Your task to perform on an android device: read, delete, or share a saved page in the chrome app Image 0: 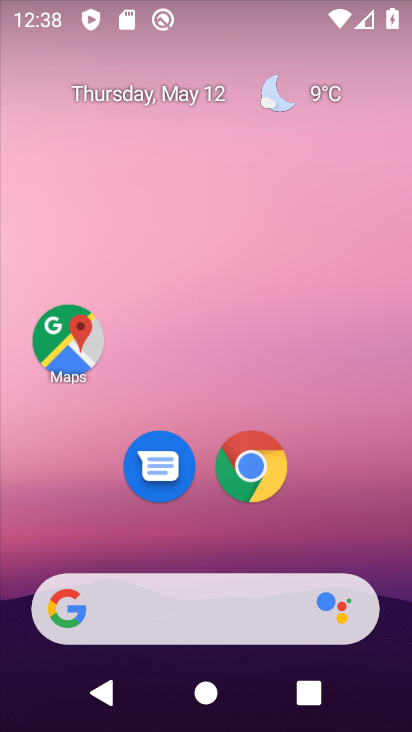
Step 0: drag from (299, 570) to (326, 369)
Your task to perform on an android device: read, delete, or share a saved page in the chrome app Image 1: 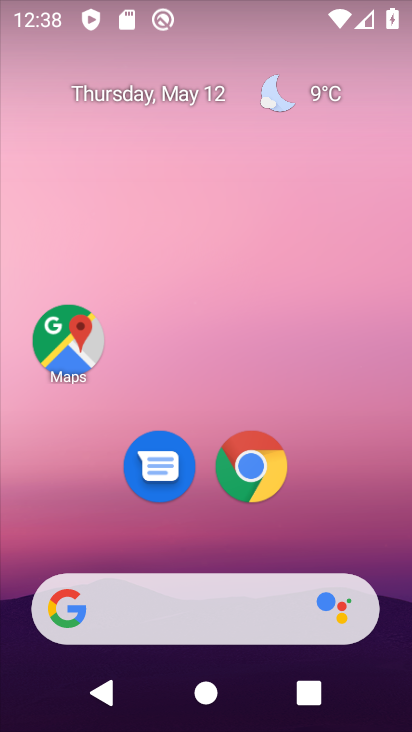
Step 1: task complete